Your task to perform on an android device: Open settings Image 0: 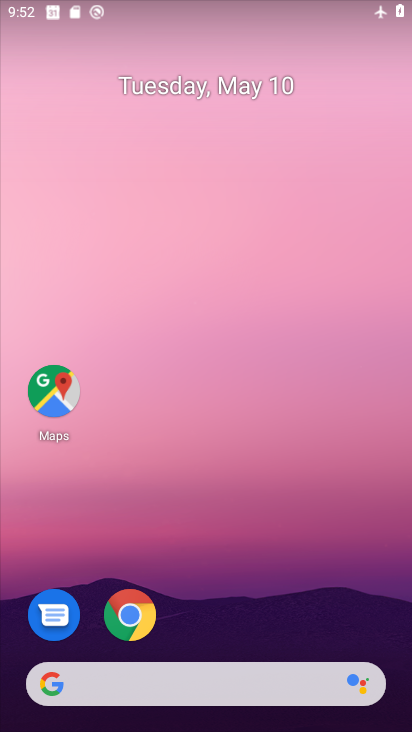
Step 0: drag from (255, 212) to (259, 137)
Your task to perform on an android device: Open settings Image 1: 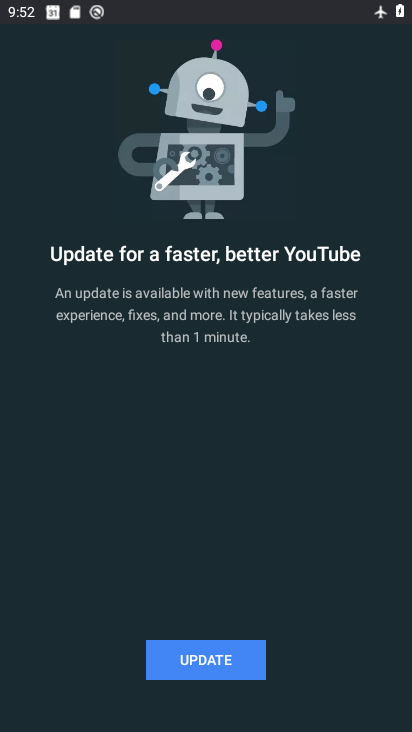
Step 1: press home button
Your task to perform on an android device: Open settings Image 2: 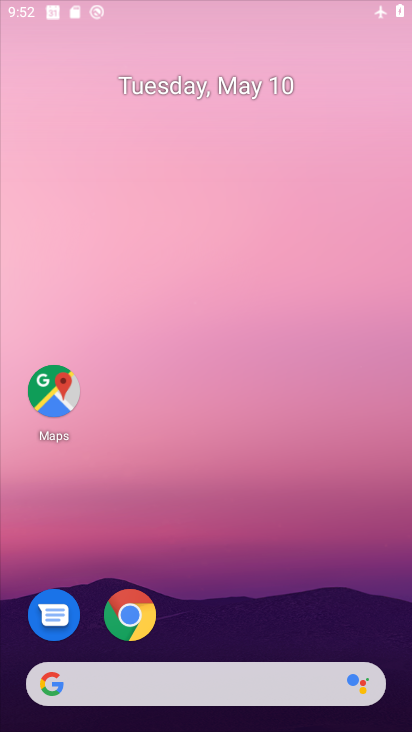
Step 2: drag from (193, 608) to (199, 163)
Your task to perform on an android device: Open settings Image 3: 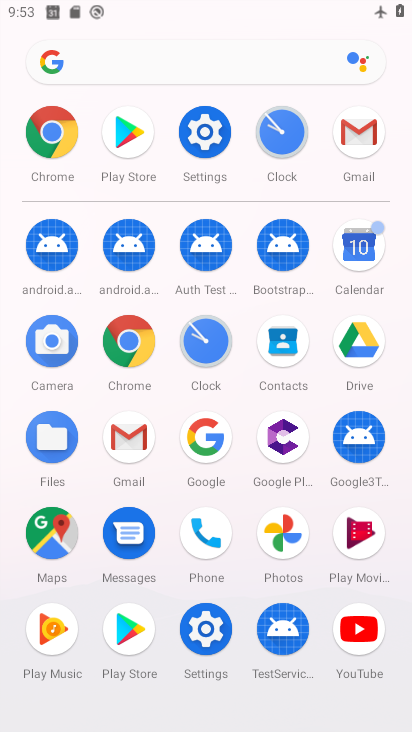
Step 3: click (203, 148)
Your task to perform on an android device: Open settings Image 4: 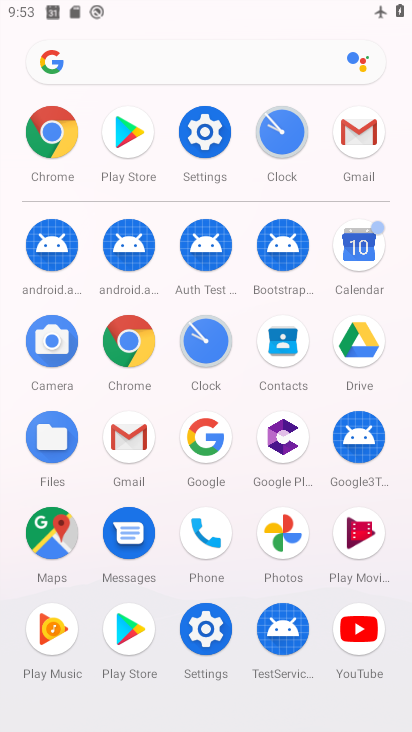
Step 4: click (203, 148)
Your task to perform on an android device: Open settings Image 5: 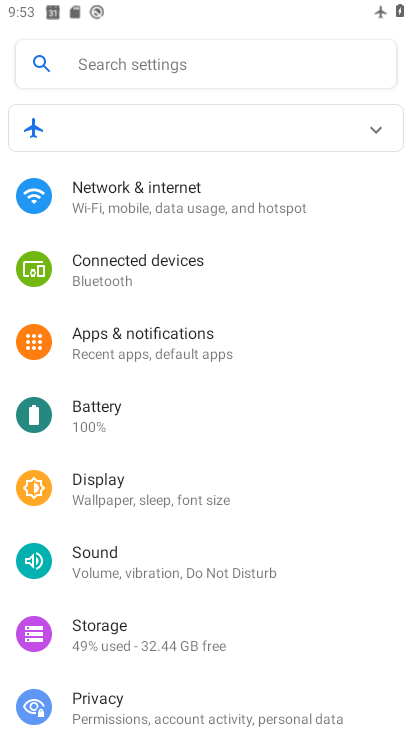
Step 5: task complete